Your task to perform on an android device: turn notification dots off Image 0: 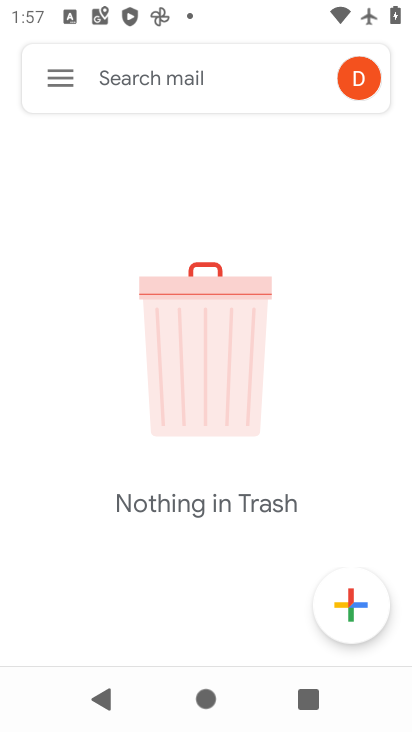
Step 0: press home button
Your task to perform on an android device: turn notification dots off Image 1: 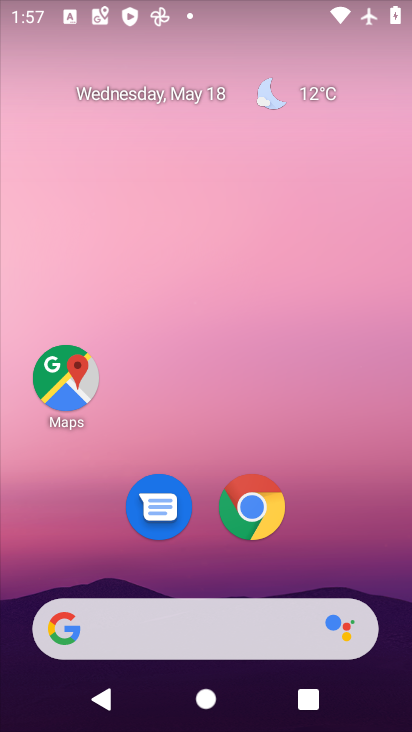
Step 1: drag from (386, 585) to (253, 104)
Your task to perform on an android device: turn notification dots off Image 2: 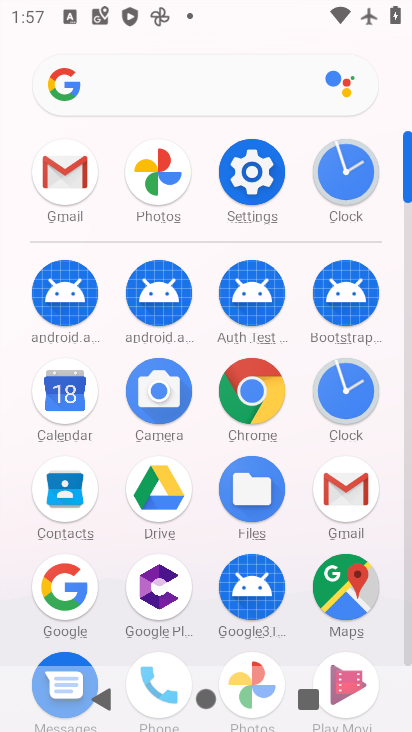
Step 2: click (409, 632)
Your task to perform on an android device: turn notification dots off Image 3: 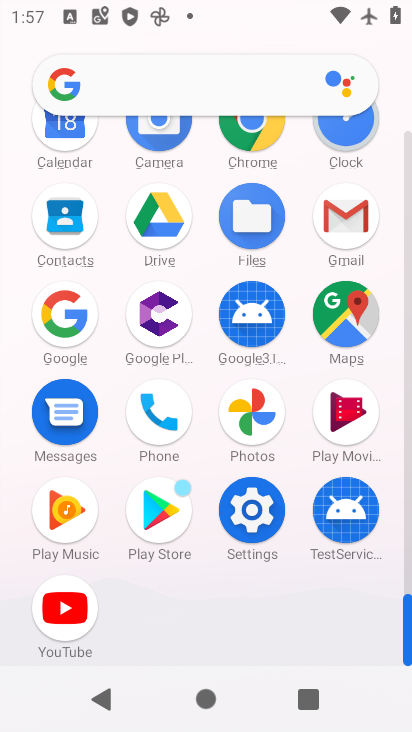
Step 3: click (248, 504)
Your task to perform on an android device: turn notification dots off Image 4: 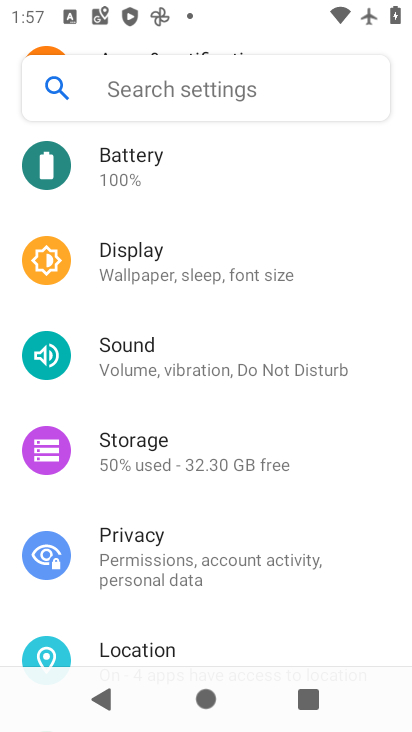
Step 4: drag from (347, 171) to (311, 511)
Your task to perform on an android device: turn notification dots off Image 5: 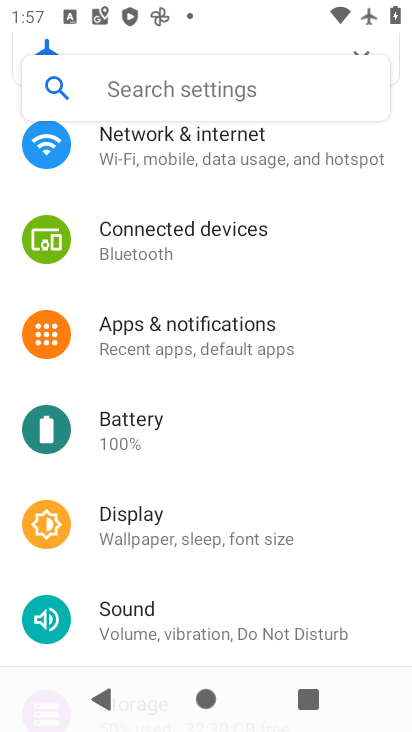
Step 5: click (210, 330)
Your task to perform on an android device: turn notification dots off Image 6: 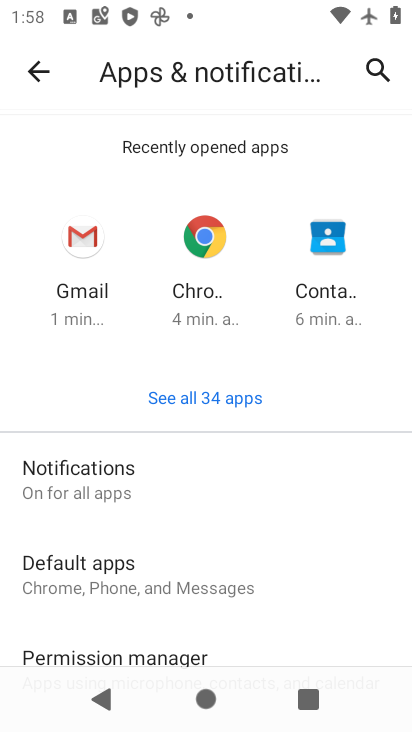
Step 6: click (107, 475)
Your task to perform on an android device: turn notification dots off Image 7: 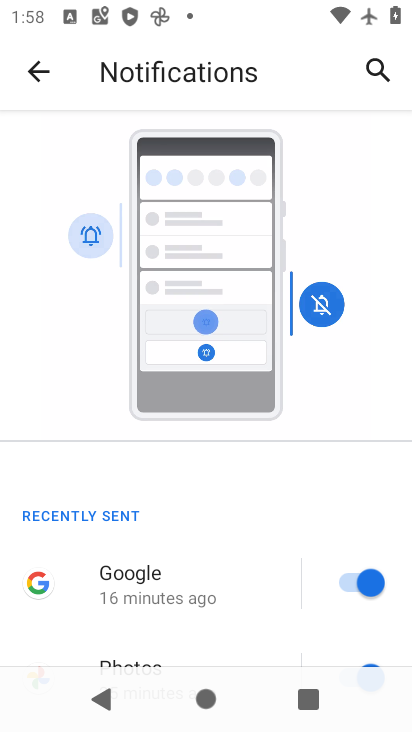
Step 7: drag from (284, 617) to (237, 220)
Your task to perform on an android device: turn notification dots off Image 8: 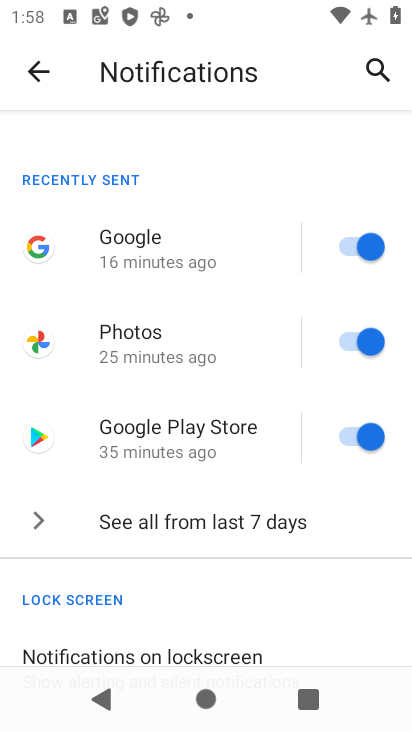
Step 8: drag from (282, 644) to (275, 303)
Your task to perform on an android device: turn notification dots off Image 9: 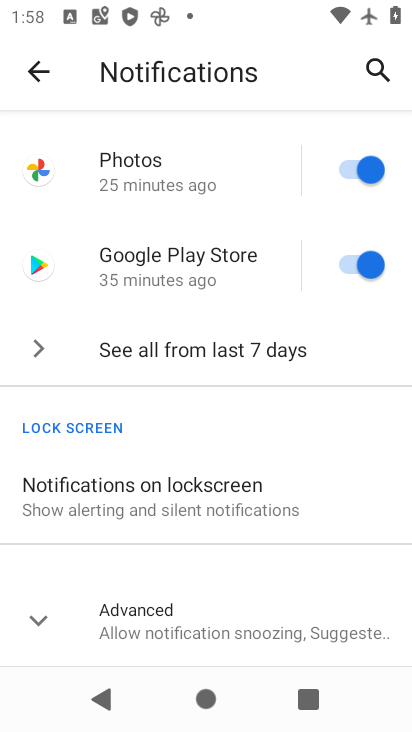
Step 9: click (31, 629)
Your task to perform on an android device: turn notification dots off Image 10: 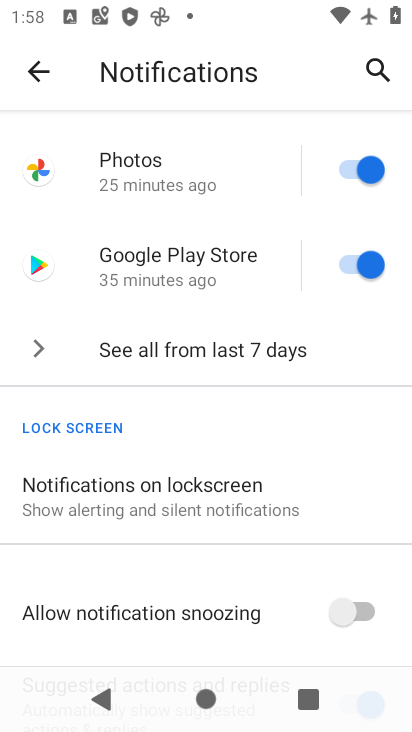
Step 10: drag from (250, 450) to (263, 293)
Your task to perform on an android device: turn notification dots off Image 11: 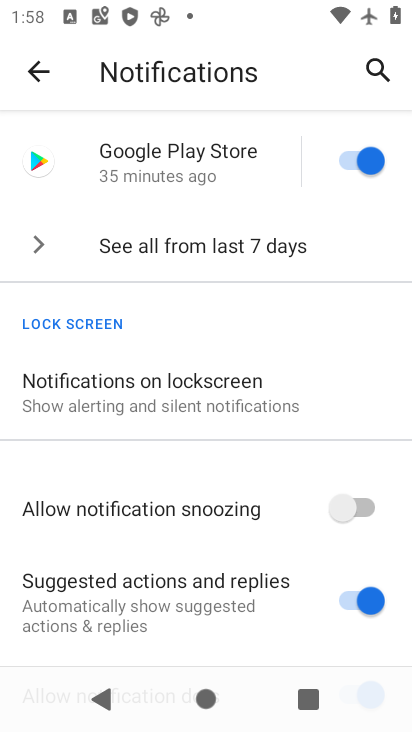
Step 11: drag from (272, 628) to (281, 191)
Your task to perform on an android device: turn notification dots off Image 12: 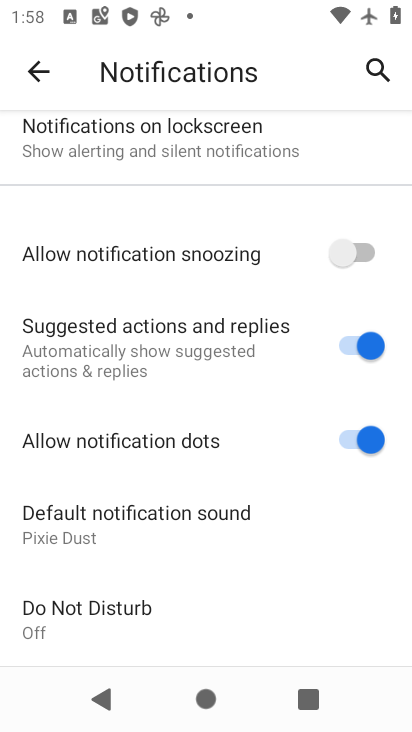
Step 12: click (345, 435)
Your task to perform on an android device: turn notification dots off Image 13: 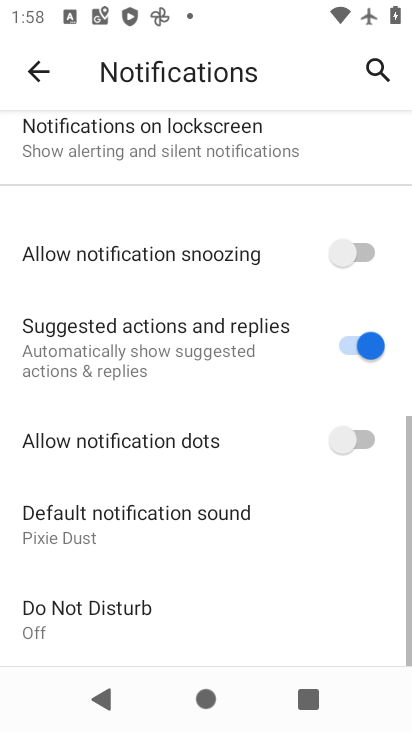
Step 13: task complete